Your task to perform on an android device: turn off improve location accuracy Image 0: 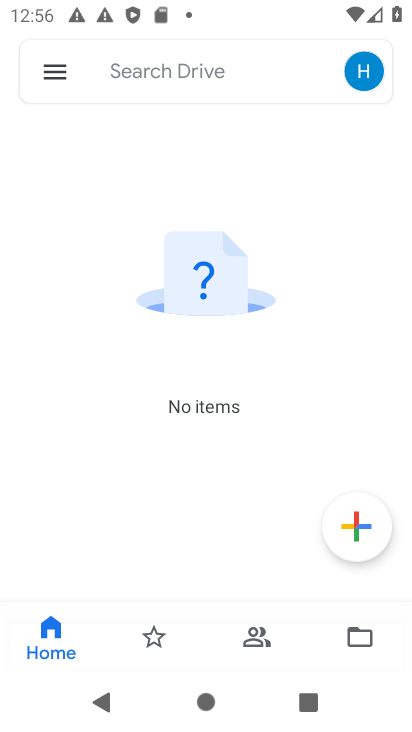
Step 0: press home button
Your task to perform on an android device: turn off improve location accuracy Image 1: 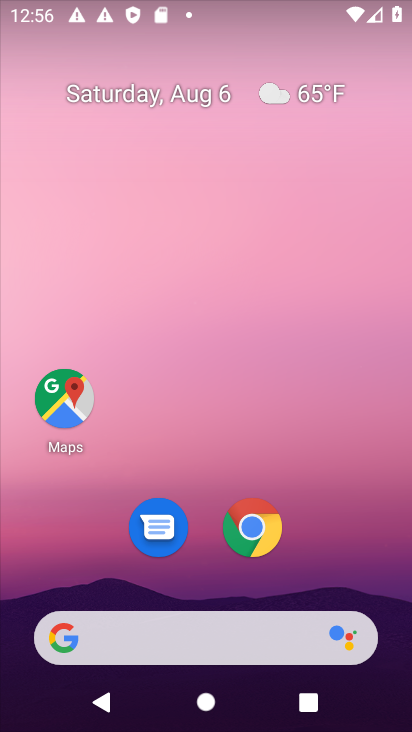
Step 1: drag from (221, 505) to (226, 221)
Your task to perform on an android device: turn off improve location accuracy Image 2: 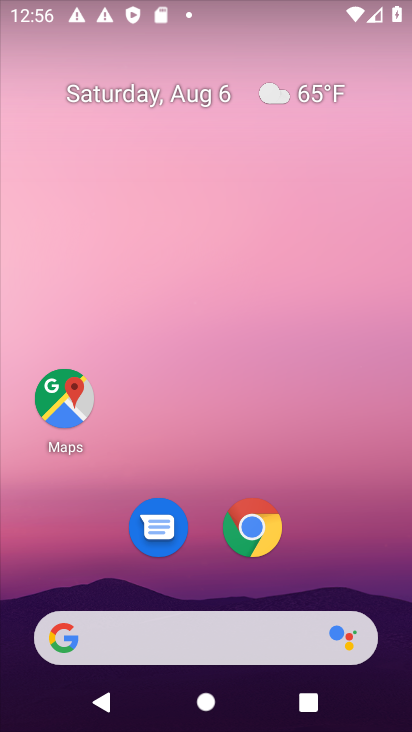
Step 2: drag from (306, 590) to (354, 64)
Your task to perform on an android device: turn off improve location accuracy Image 3: 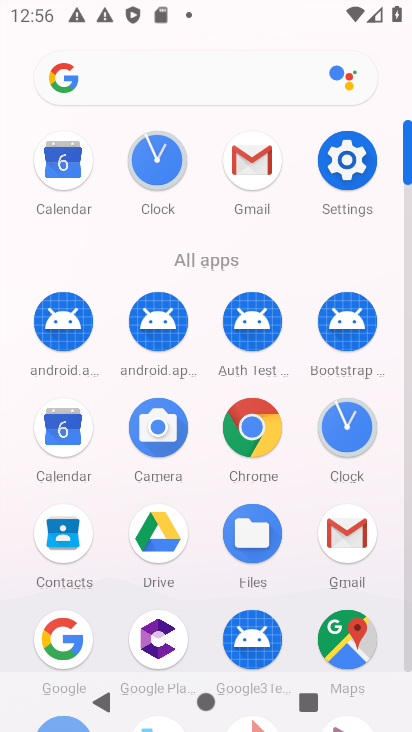
Step 3: click (334, 174)
Your task to perform on an android device: turn off improve location accuracy Image 4: 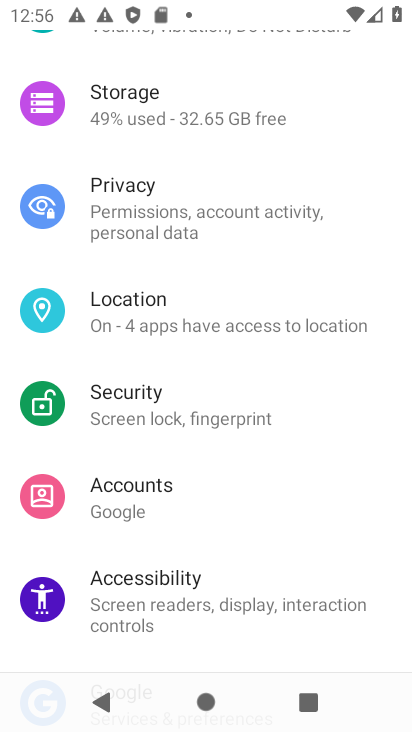
Step 4: drag from (179, 577) to (189, 145)
Your task to perform on an android device: turn off improve location accuracy Image 5: 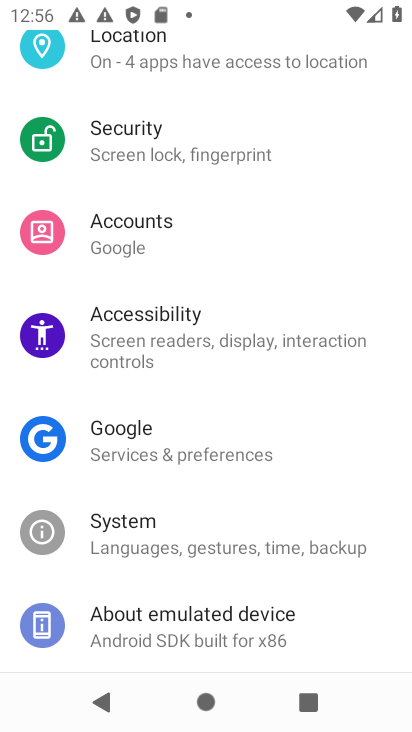
Step 5: drag from (165, 313) to (174, 533)
Your task to perform on an android device: turn off improve location accuracy Image 6: 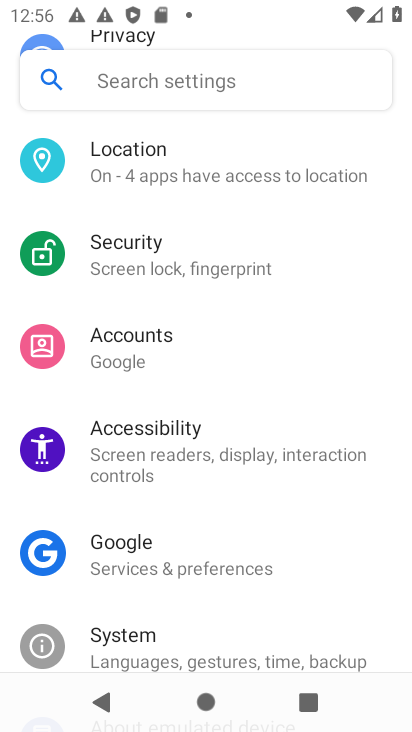
Step 6: click (136, 163)
Your task to perform on an android device: turn off improve location accuracy Image 7: 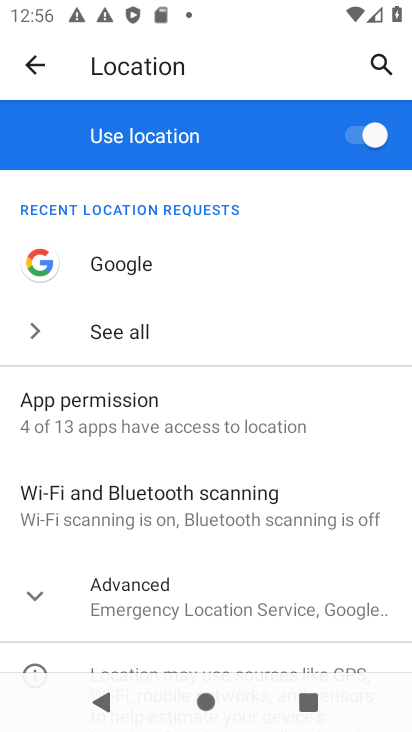
Step 7: click (163, 600)
Your task to perform on an android device: turn off improve location accuracy Image 8: 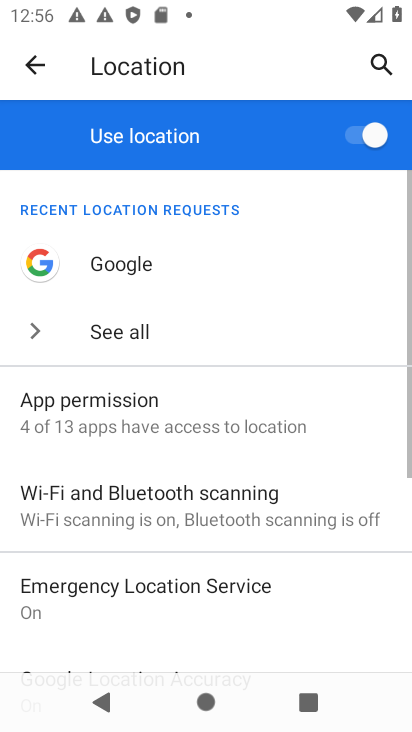
Step 8: drag from (163, 600) to (189, 256)
Your task to perform on an android device: turn off improve location accuracy Image 9: 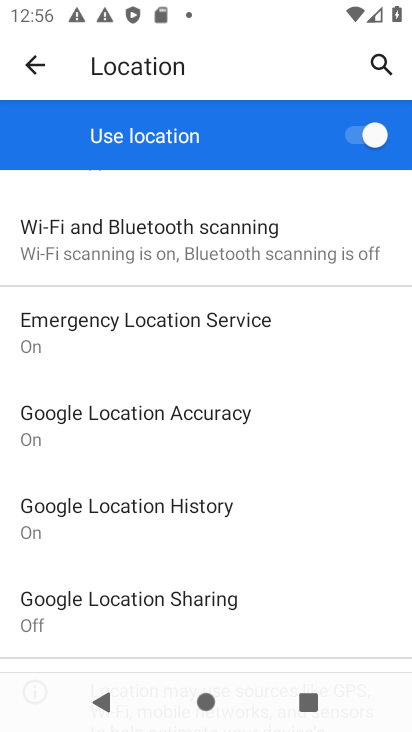
Step 9: click (144, 437)
Your task to perform on an android device: turn off improve location accuracy Image 10: 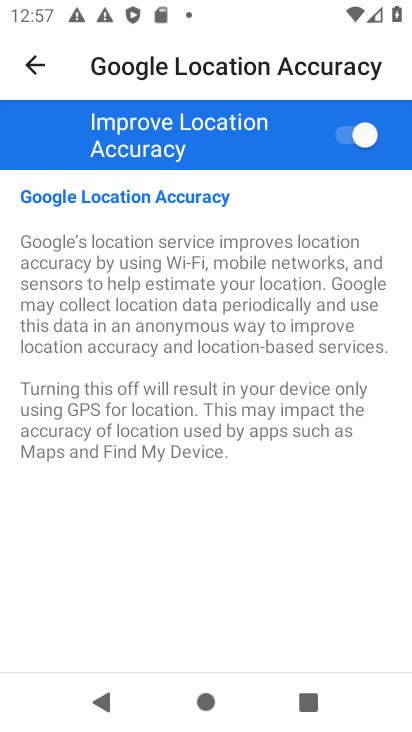
Step 10: click (362, 143)
Your task to perform on an android device: turn off improve location accuracy Image 11: 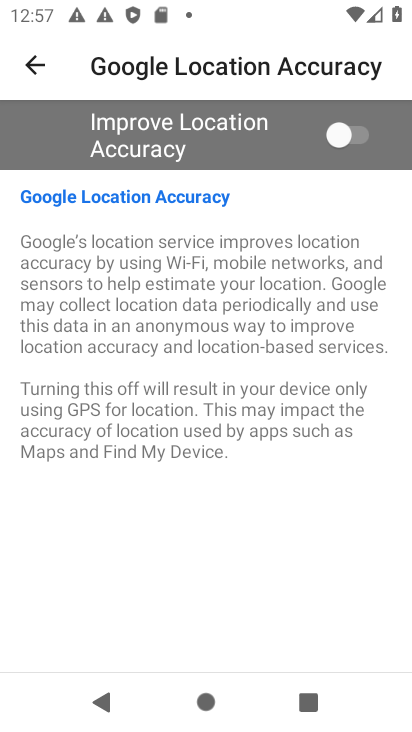
Step 11: task complete